Your task to perform on an android device: Set the phone to "Do not disturb". Image 0: 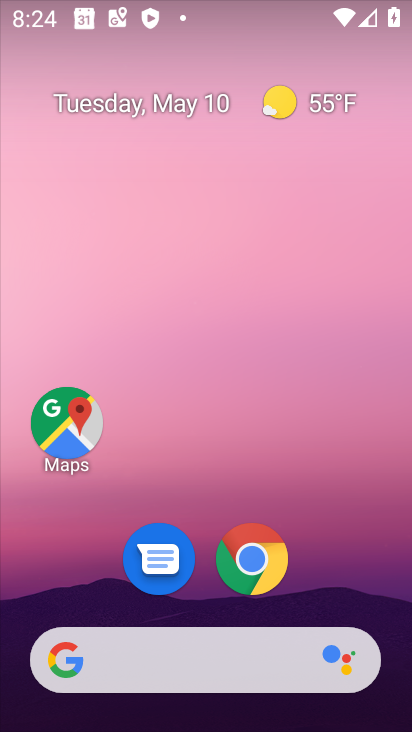
Step 0: drag from (167, 721) to (162, 186)
Your task to perform on an android device: Set the phone to "Do not disturb". Image 1: 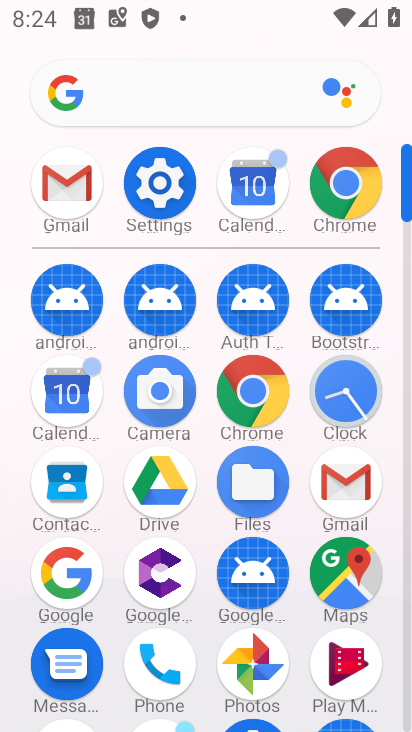
Step 1: click (159, 180)
Your task to perform on an android device: Set the phone to "Do not disturb". Image 2: 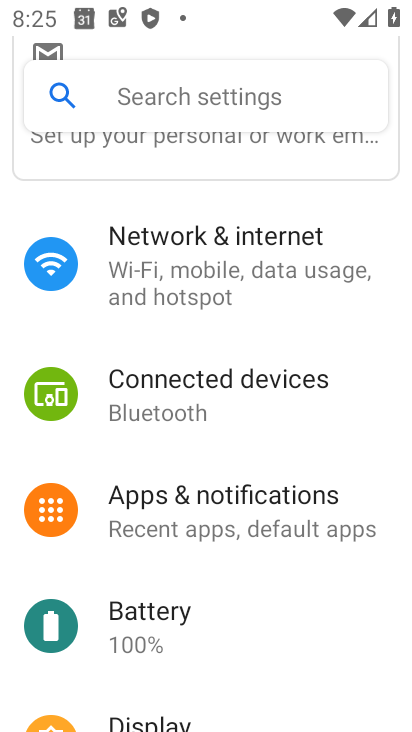
Step 2: drag from (184, 638) to (190, 357)
Your task to perform on an android device: Set the phone to "Do not disturb". Image 3: 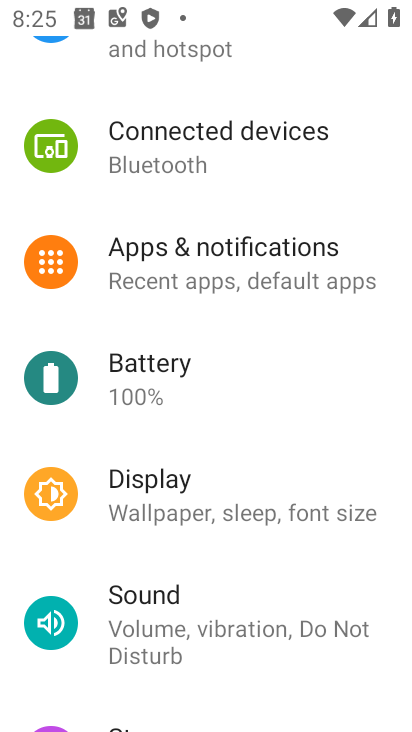
Step 3: click (219, 626)
Your task to perform on an android device: Set the phone to "Do not disturb". Image 4: 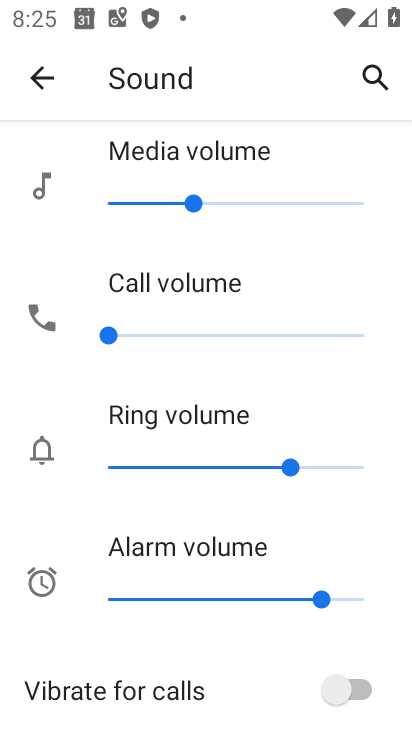
Step 4: drag from (197, 700) to (188, 244)
Your task to perform on an android device: Set the phone to "Do not disturb". Image 5: 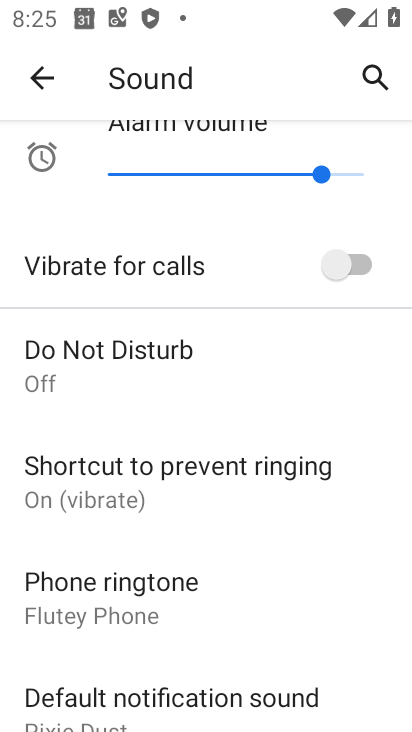
Step 5: click (100, 347)
Your task to perform on an android device: Set the phone to "Do not disturb". Image 6: 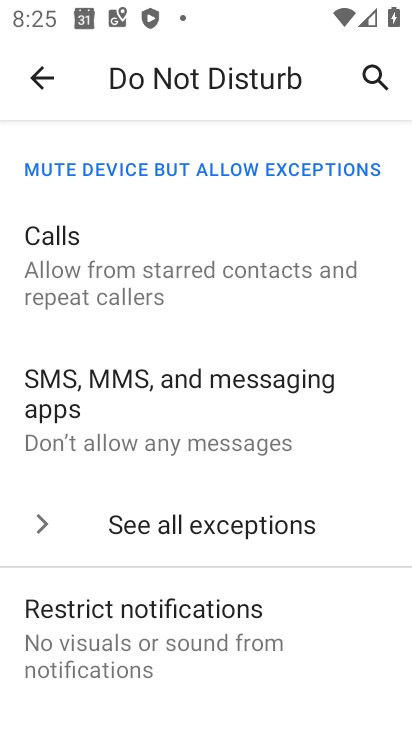
Step 6: drag from (195, 691) to (212, 260)
Your task to perform on an android device: Set the phone to "Do not disturb". Image 7: 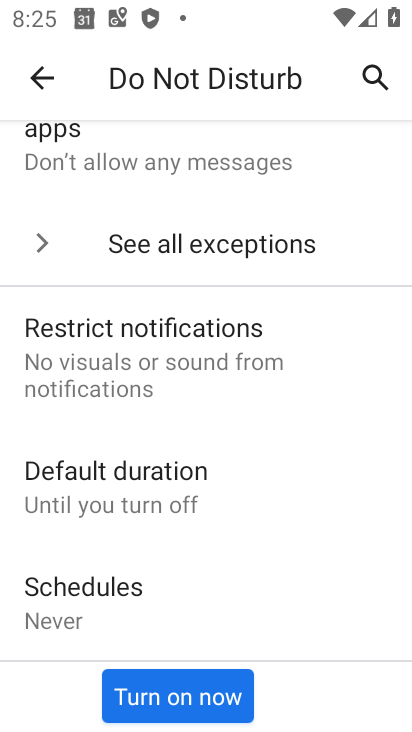
Step 7: click (172, 701)
Your task to perform on an android device: Set the phone to "Do not disturb". Image 8: 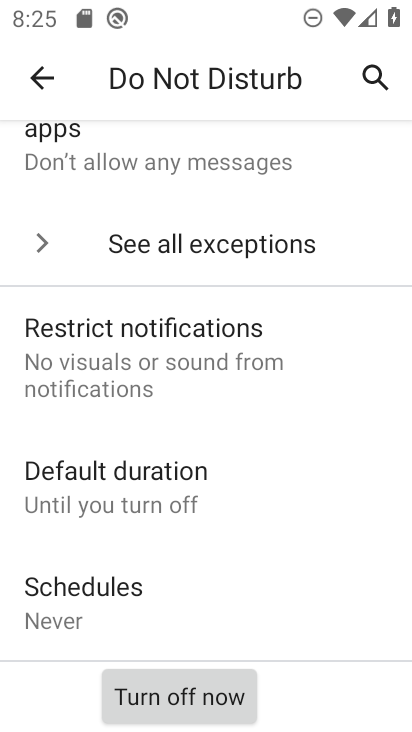
Step 8: task complete